Your task to perform on an android device: turn off picture-in-picture Image 0: 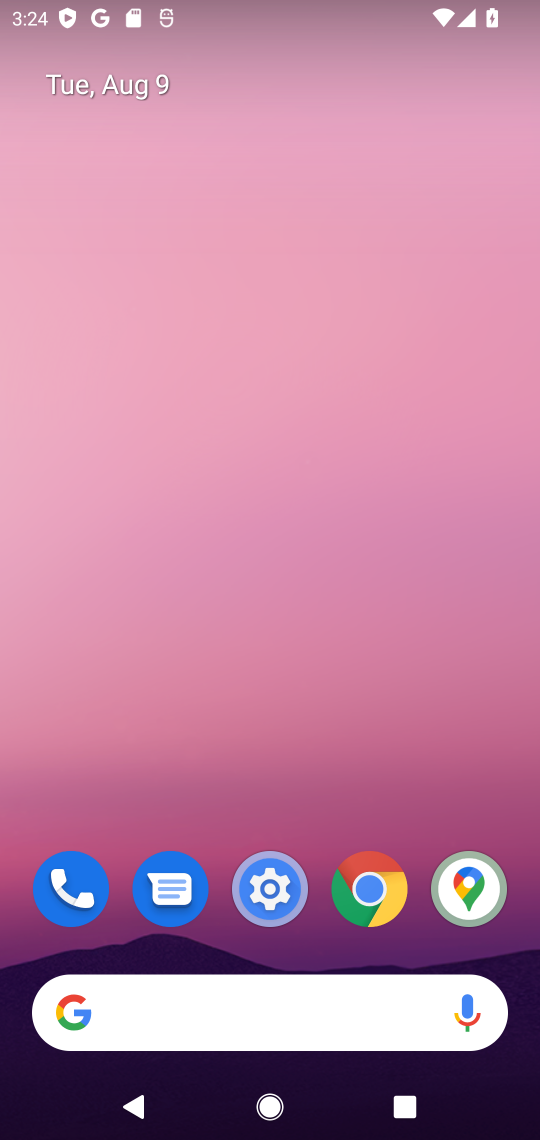
Step 0: click (377, 886)
Your task to perform on an android device: turn off picture-in-picture Image 1: 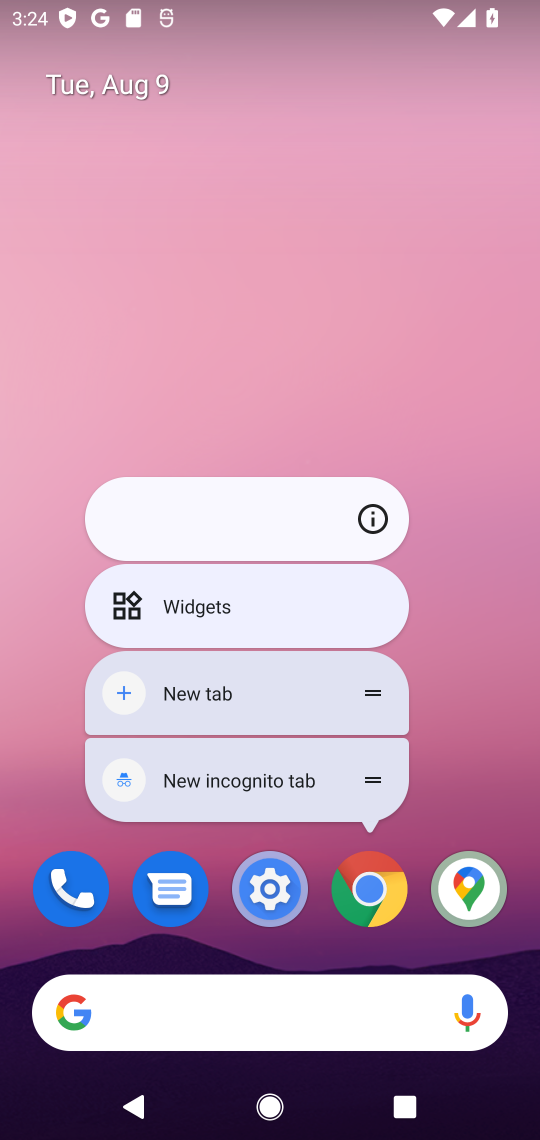
Step 1: click (376, 520)
Your task to perform on an android device: turn off picture-in-picture Image 2: 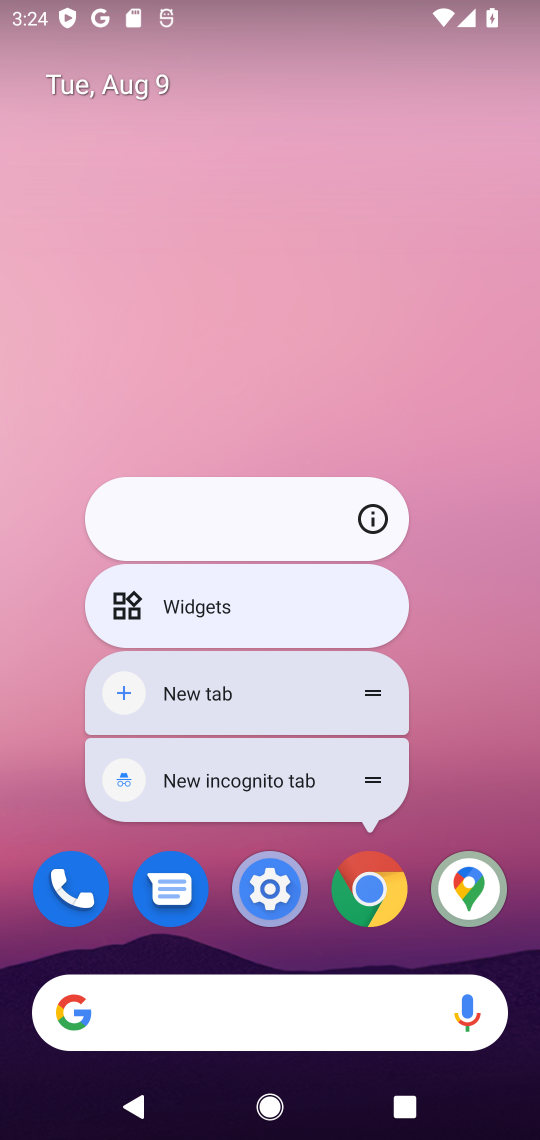
Step 2: click (376, 522)
Your task to perform on an android device: turn off picture-in-picture Image 3: 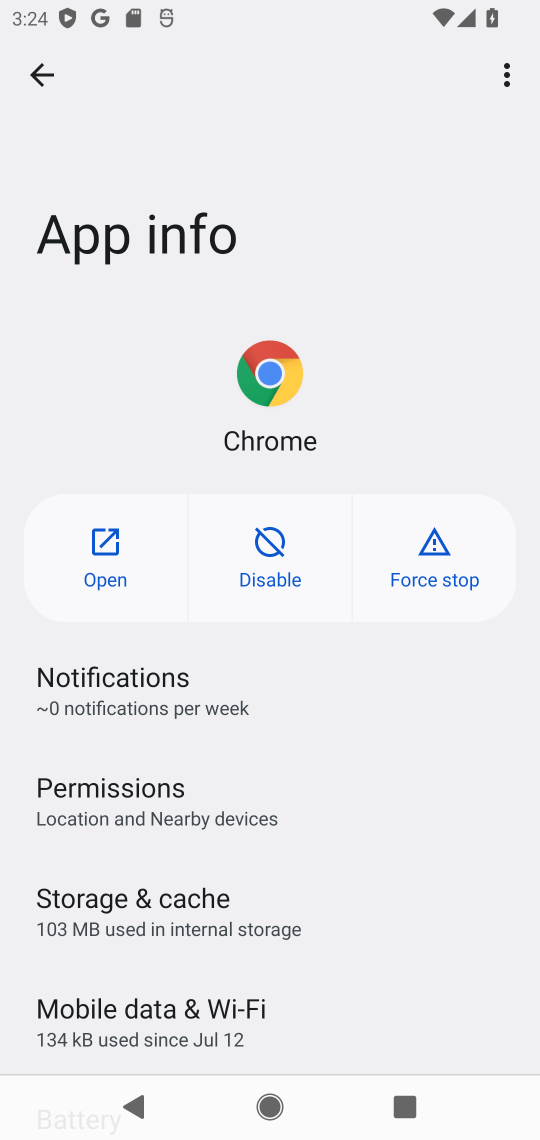
Step 3: drag from (313, 854) to (332, 19)
Your task to perform on an android device: turn off picture-in-picture Image 4: 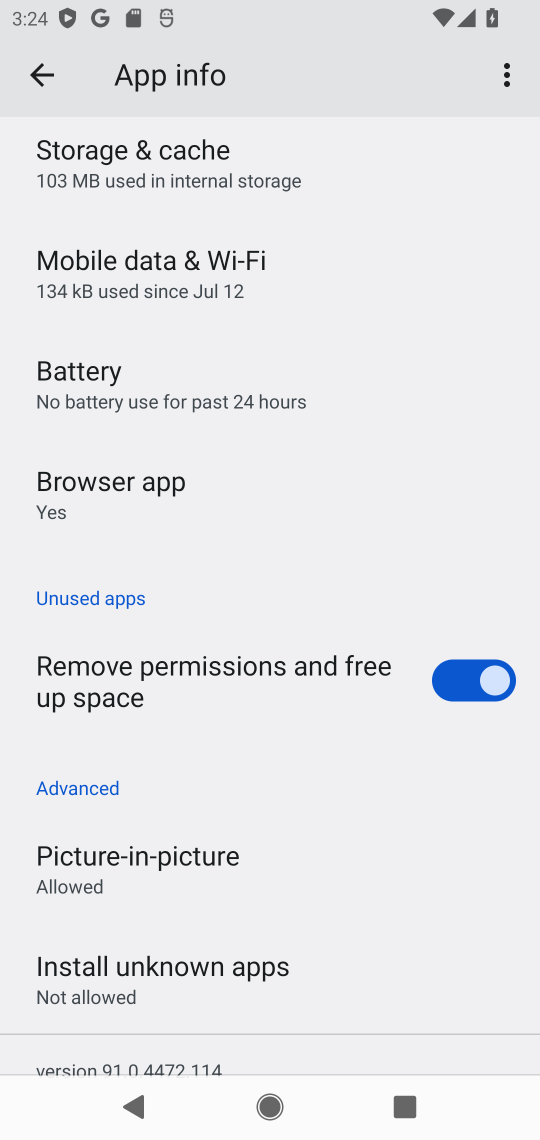
Step 4: click (157, 866)
Your task to perform on an android device: turn off picture-in-picture Image 5: 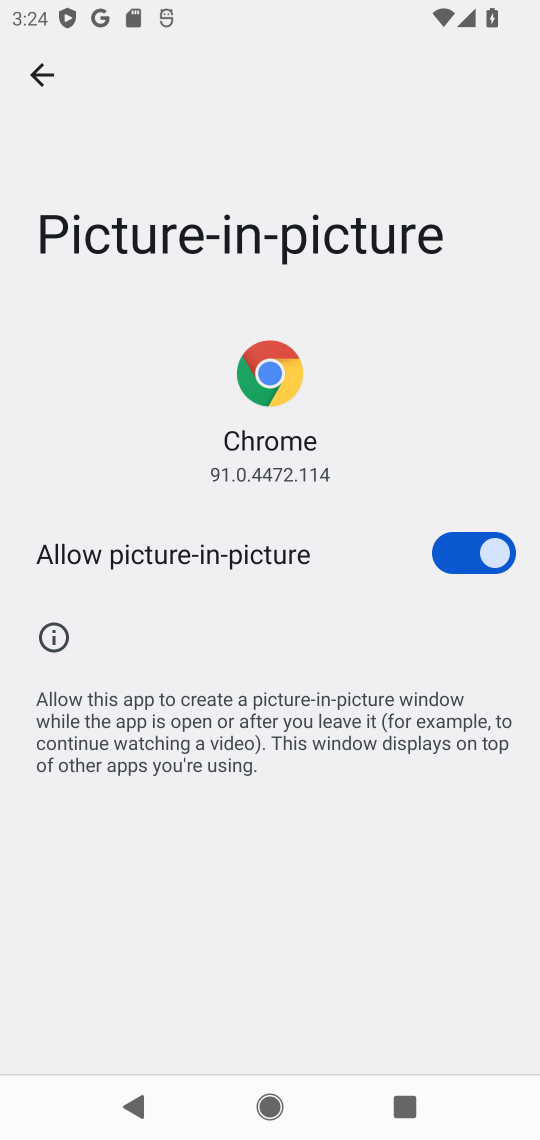
Step 5: click (446, 541)
Your task to perform on an android device: turn off picture-in-picture Image 6: 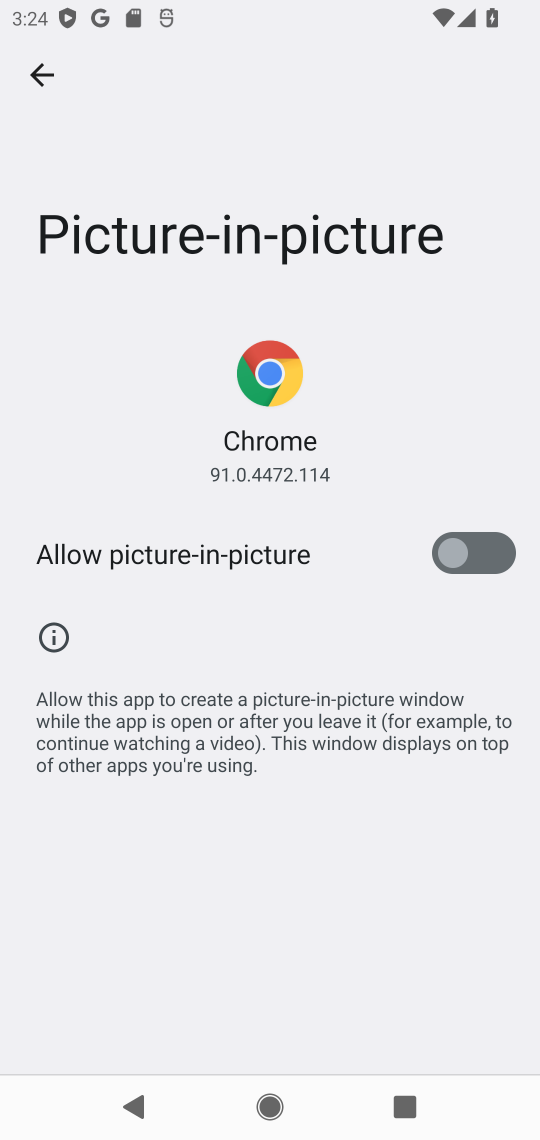
Step 6: task complete